Your task to perform on an android device: Open Wikipedia Image 0: 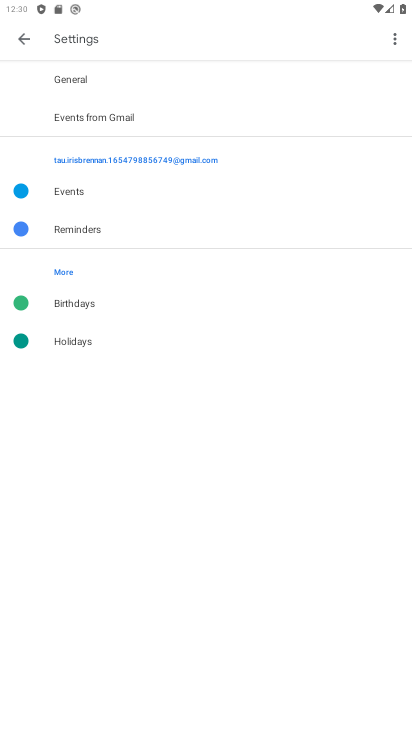
Step 0: press home button
Your task to perform on an android device: Open Wikipedia Image 1: 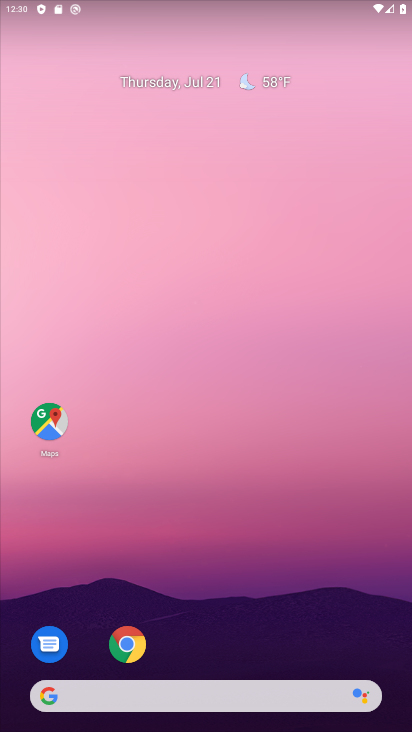
Step 1: drag from (342, 590) to (340, 129)
Your task to perform on an android device: Open Wikipedia Image 2: 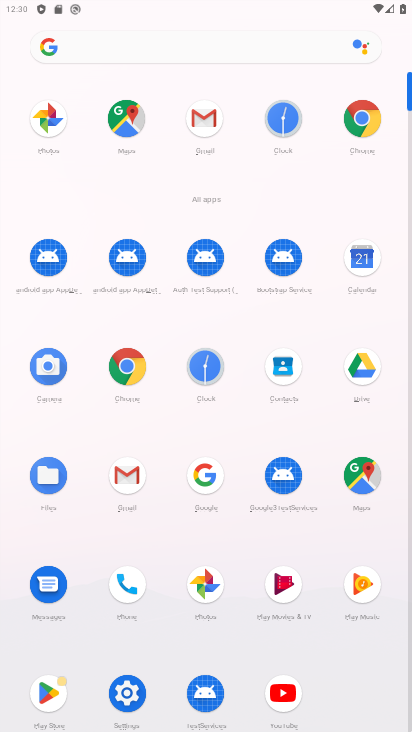
Step 2: click (130, 374)
Your task to perform on an android device: Open Wikipedia Image 3: 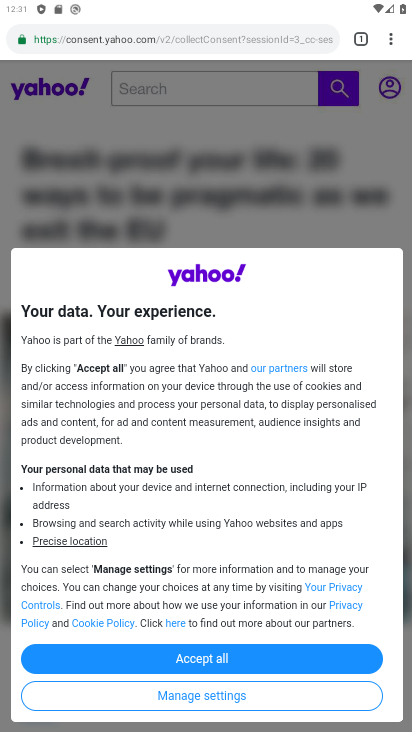
Step 3: click (161, 31)
Your task to perform on an android device: Open Wikipedia Image 4: 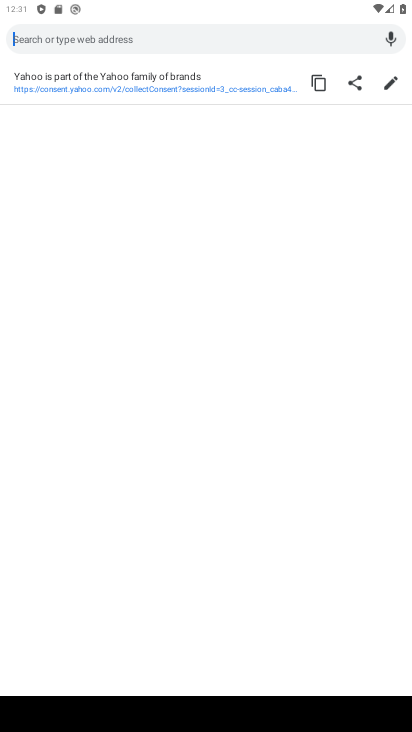
Step 4: type "wikipedia"
Your task to perform on an android device: Open Wikipedia Image 5: 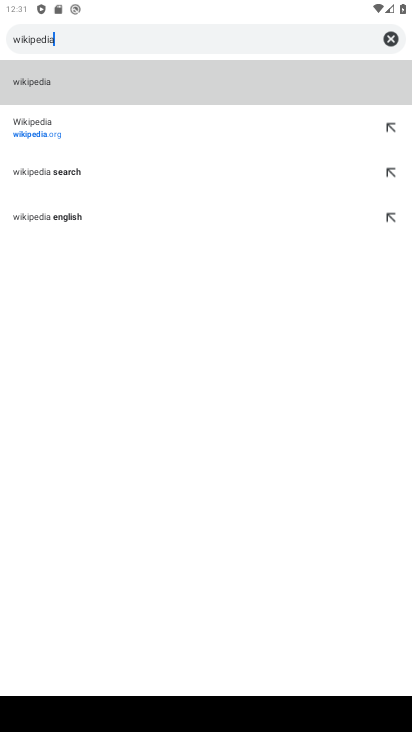
Step 5: click (101, 138)
Your task to perform on an android device: Open Wikipedia Image 6: 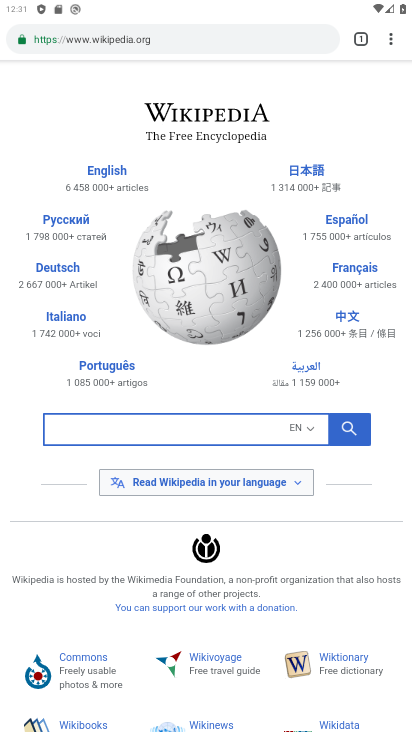
Step 6: task complete